Your task to perform on an android device: toggle javascript in the chrome app Image 0: 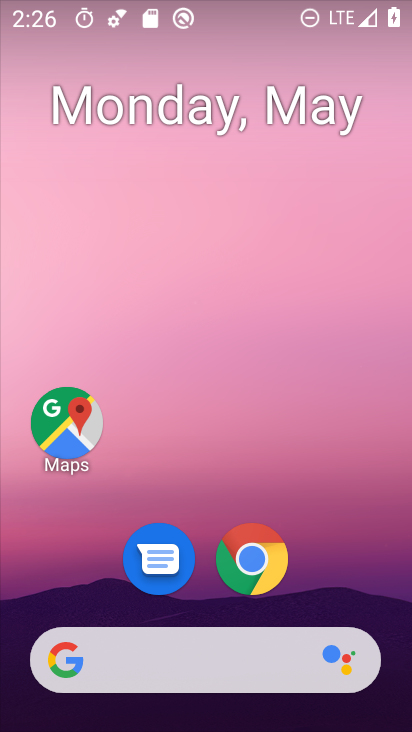
Step 0: click (255, 567)
Your task to perform on an android device: toggle javascript in the chrome app Image 1: 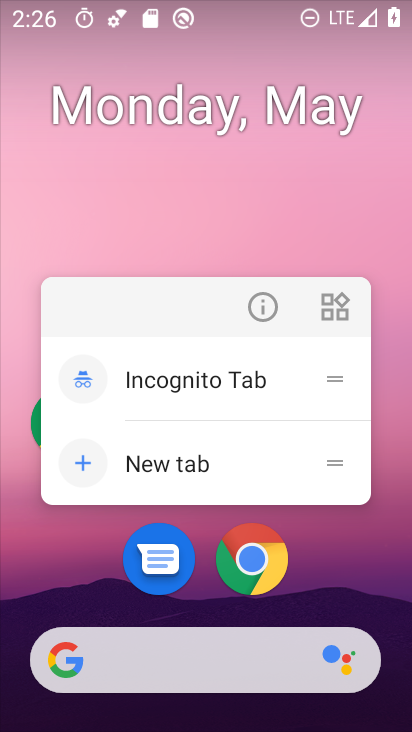
Step 1: click (256, 567)
Your task to perform on an android device: toggle javascript in the chrome app Image 2: 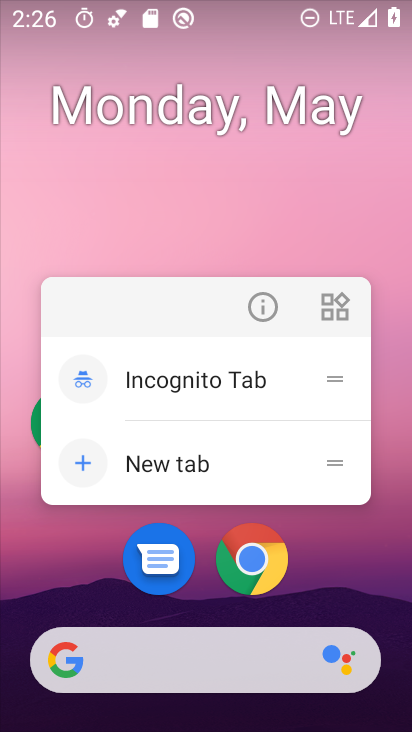
Step 2: click (252, 543)
Your task to perform on an android device: toggle javascript in the chrome app Image 3: 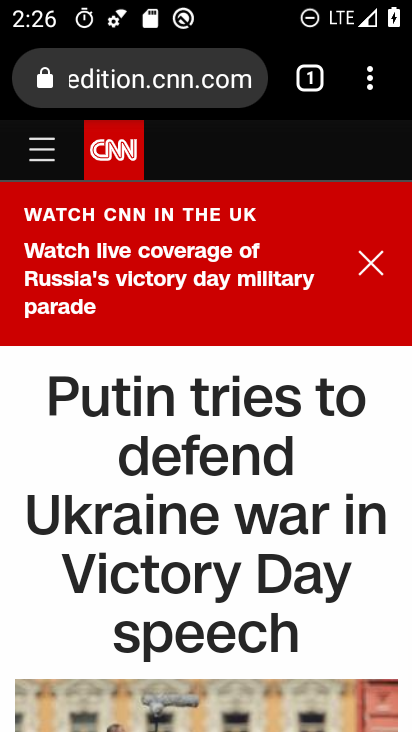
Step 3: drag from (376, 81) to (146, 618)
Your task to perform on an android device: toggle javascript in the chrome app Image 4: 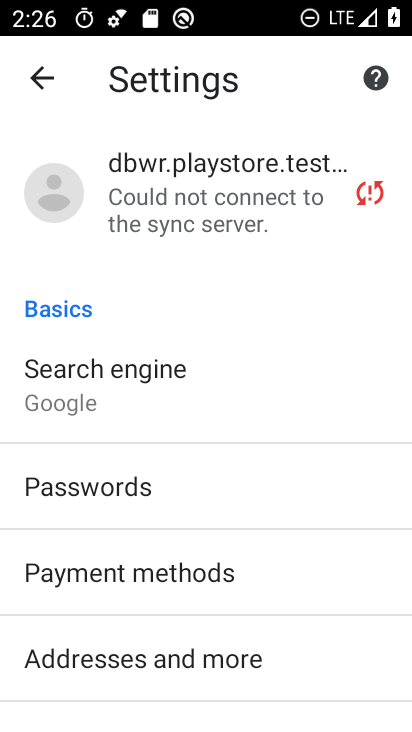
Step 4: drag from (205, 620) to (204, 156)
Your task to perform on an android device: toggle javascript in the chrome app Image 5: 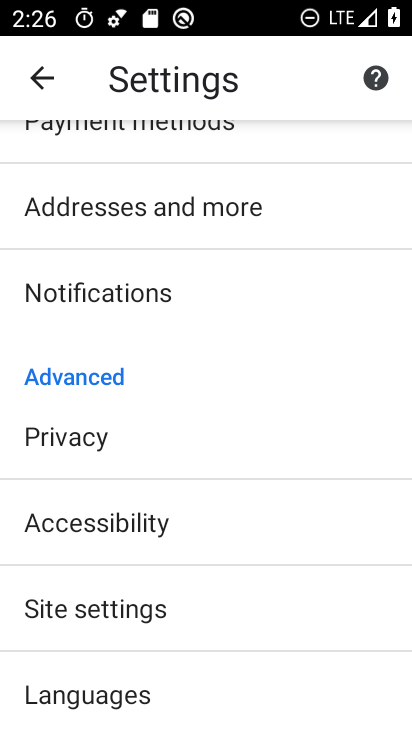
Step 5: click (129, 607)
Your task to perform on an android device: toggle javascript in the chrome app Image 6: 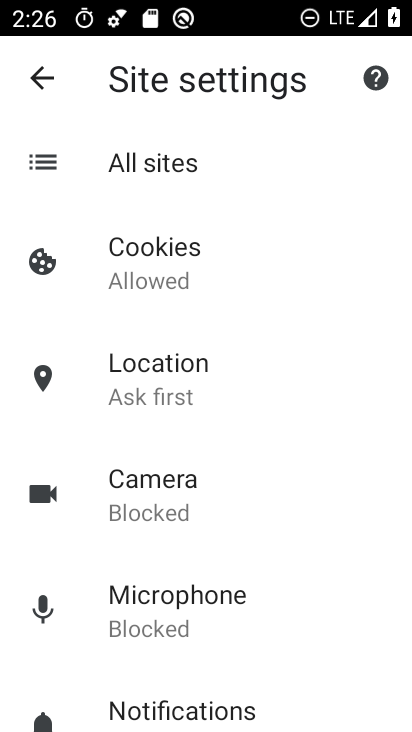
Step 6: drag from (240, 650) to (278, 327)
Your task to perform on an android device: toggle javascript in the chrome app Image 7: 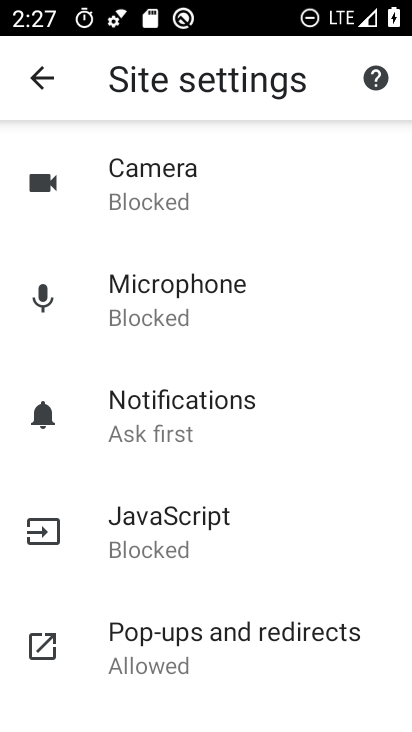
Step 7: click (168, 544)
Your task to perform on an android device: toggle javascript in the chrome app Image 8: 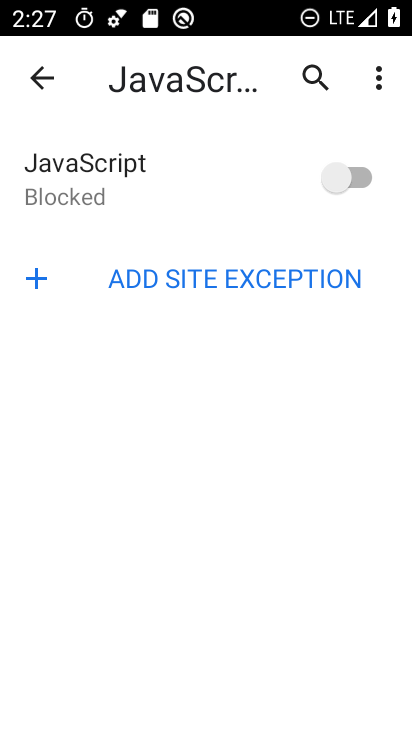
Step 8: click (344, 184)
Your task to perform on an android device: toggle javascript in the chrome app Image 9: 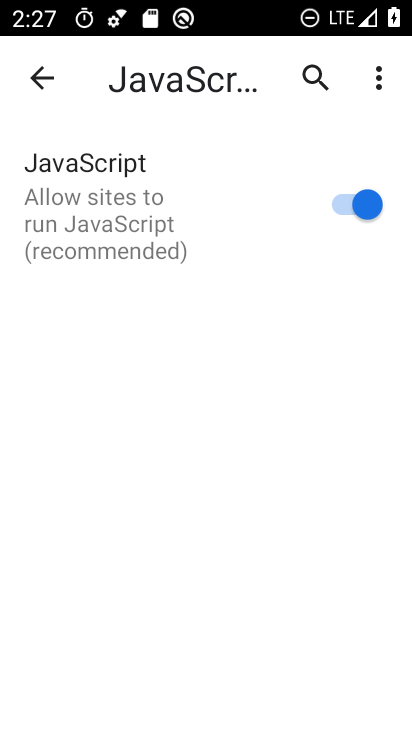
Step 9: task complete